Your task to perform on an android device: Show me popular videos on Youtube Image 0: 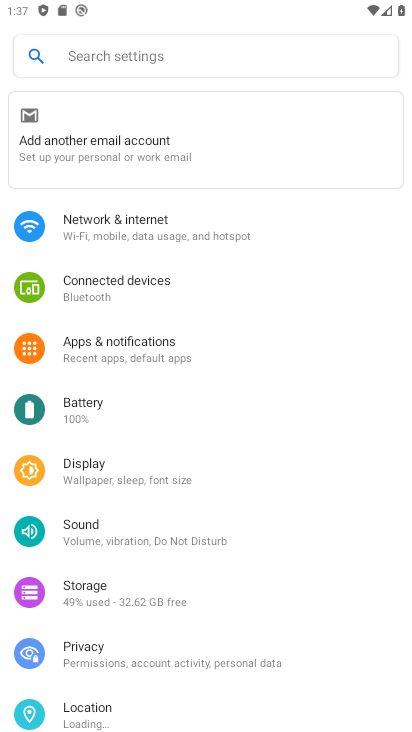
Step 0: press back button
Your task to perform on an android device: Show me popular videos on Youtube Image 1: 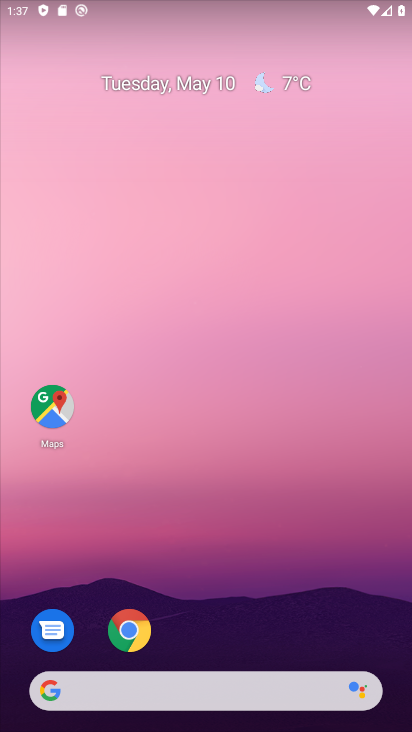
Step 1: drag from (235, 595) to (176, 10)
Your task to perform on an android device: Show me popular videos on Youtube Image 2: 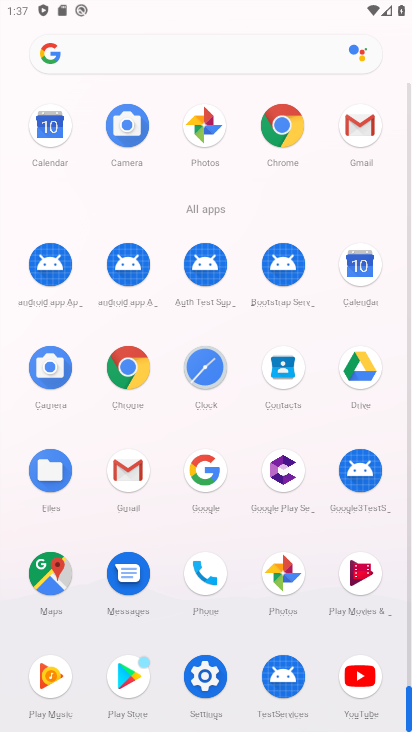
Step 2: click (363, 677)
Your task to perform on an android device: Show me popular videos on Youtube Image 3: 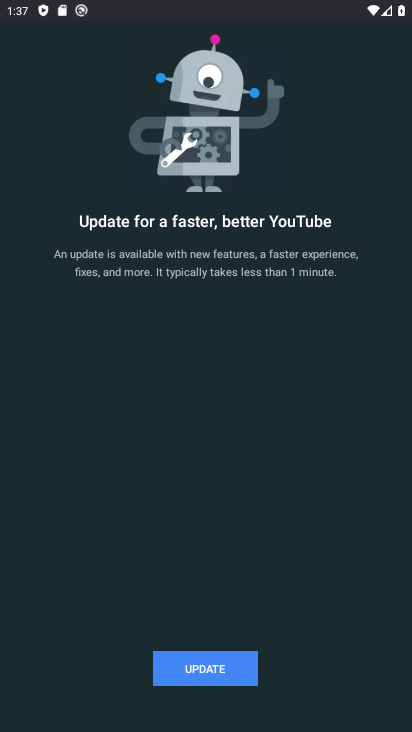
Step 3: click (228, 657)
Your task to perform on an android device: Show me popular videos on Youtube Image 4: 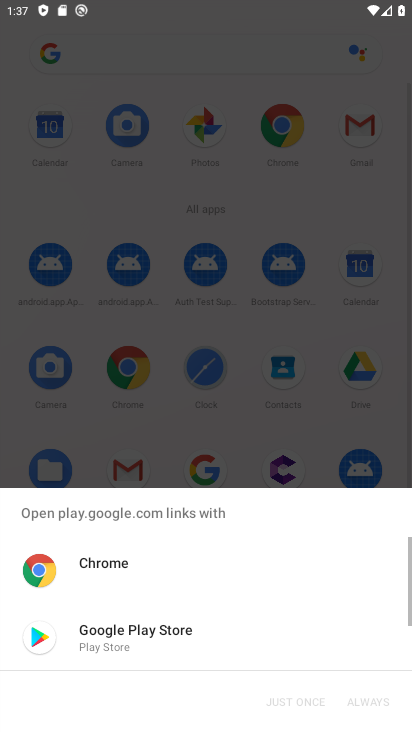
Step 4: click (164, 638)
Your task to perform on an android device: Show me popular videos on Youtube Image 5: 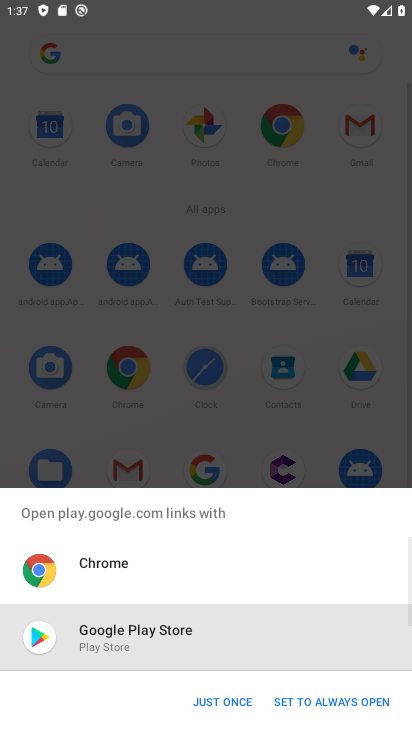
Step 5: click (196, 706)
Your task to perform on an android device: Show me popular videos on Youtube Image 6: 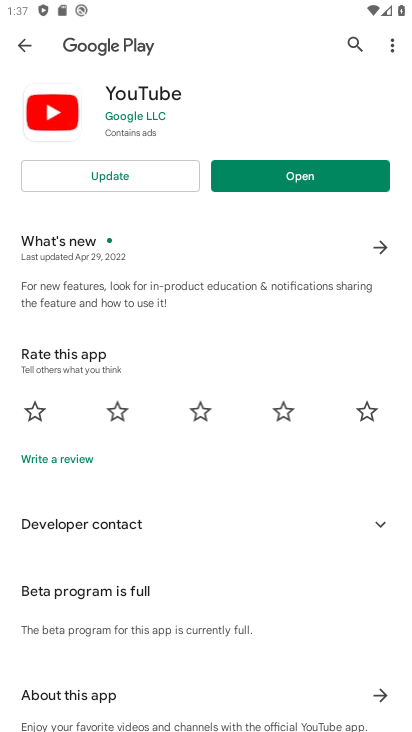
Step 6: click (138, 181)
Your task to perform on an android device: Show me popular videos on Youtube Image 7: 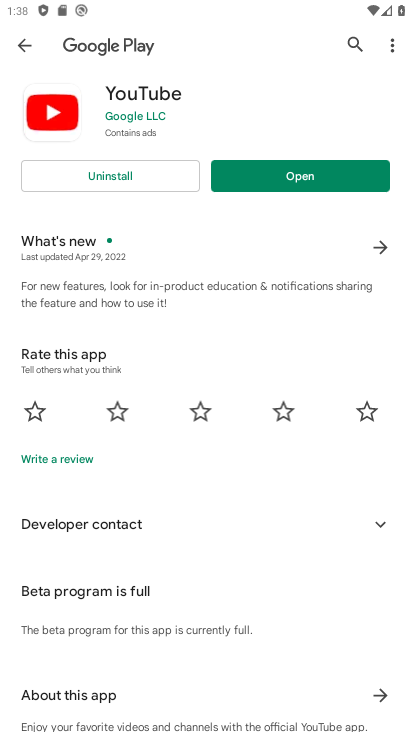
Step 7: click (264, 173)
Your task to perform on an android device: Show me popular videos on Youtube Image 8: 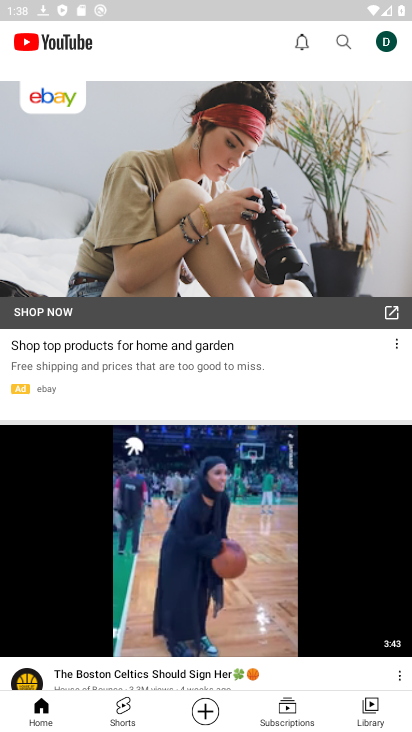
Step 8: click (372, 721)
Your task to perform on an android device: Show me popular videos on Youtube Image 9: 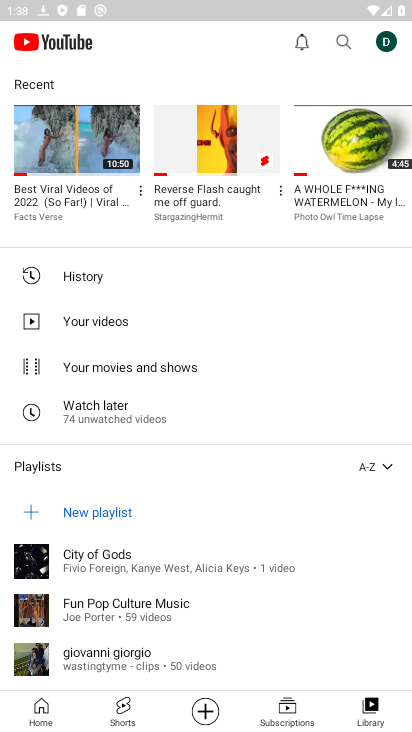
Step 9: click (71, 156)
Your task to perform on an android device: Show me popular videos on Youtube Image 10: 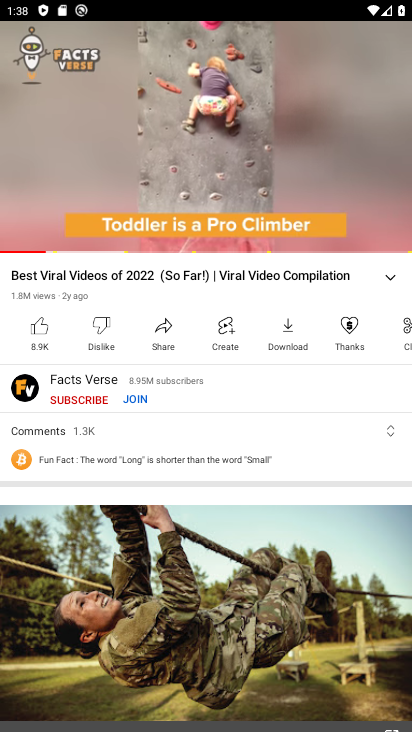
Step 10: task complete